Your task to perform on an android device: Open eBay Image 0: 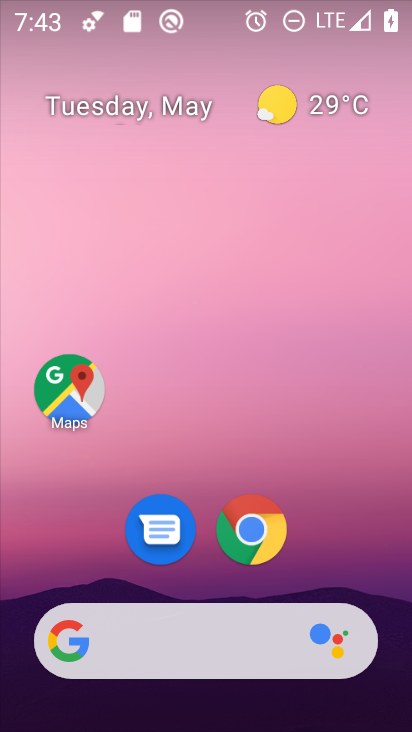
Step 0: drag from (394, 635) to (313, 30)
Your task to perform on an android device: Open eBay Image 1: 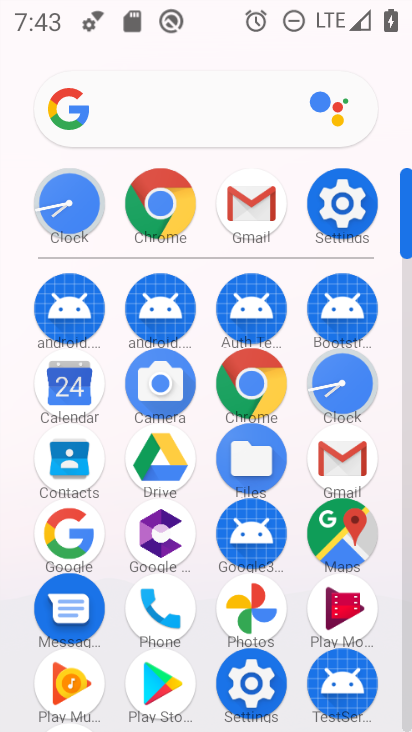
Step 1: click (74, 525)
Your task to perform on an android device: Open eBay Image 2: 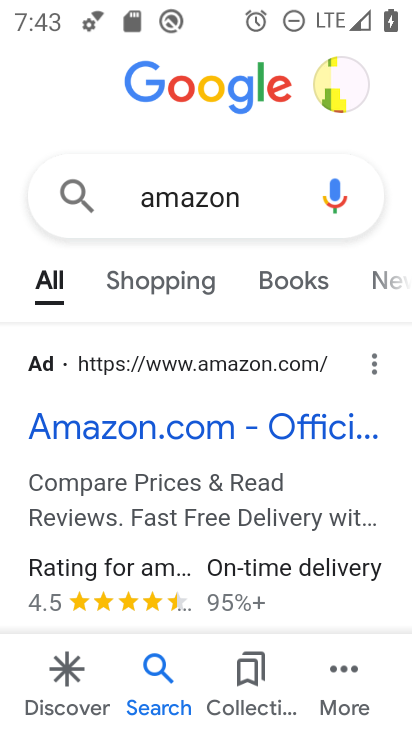
Step 2: press back button
Your task to perform on an android device: Open eBay Image 3: 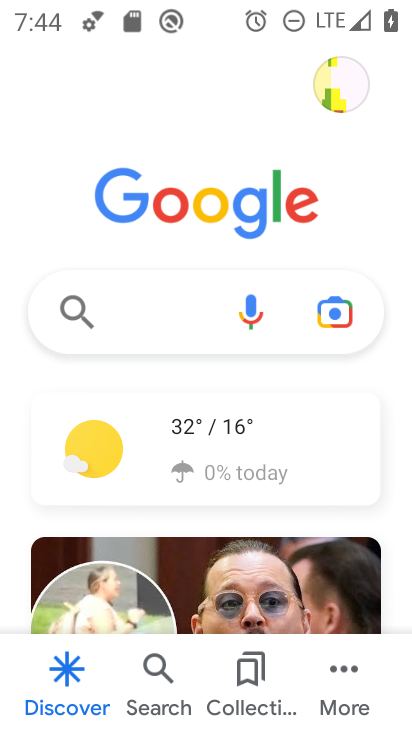
Step 3: click (161, 346)
Your task to perform on an android device: Open eBay Image 4: 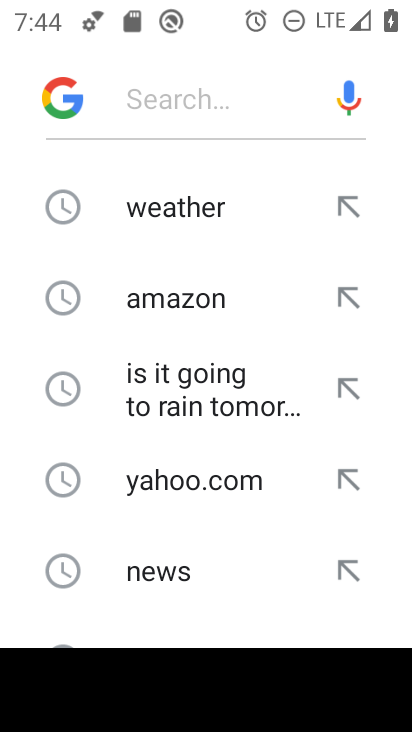
Step 4: drag from (169, 563) to (262, 158)
Your task to perform on an android device: Open eBay Image 5: 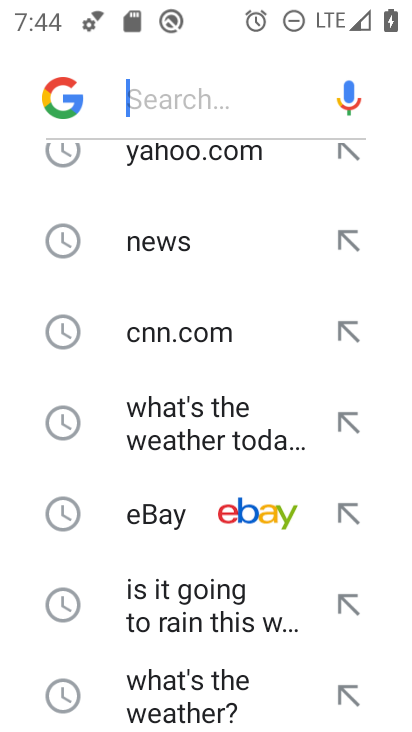
Step 5: click (195, 506)
Your task to perform on an android device: Open eBay Image 6: 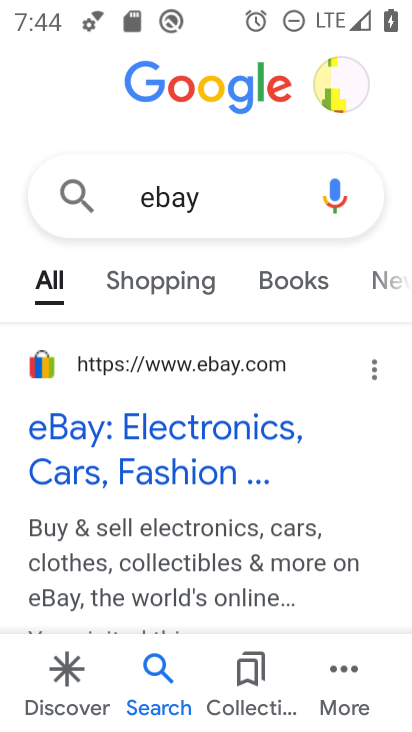
Step 6: task complete